Your task to perform on an android device: Open Wikipedia Image 0: 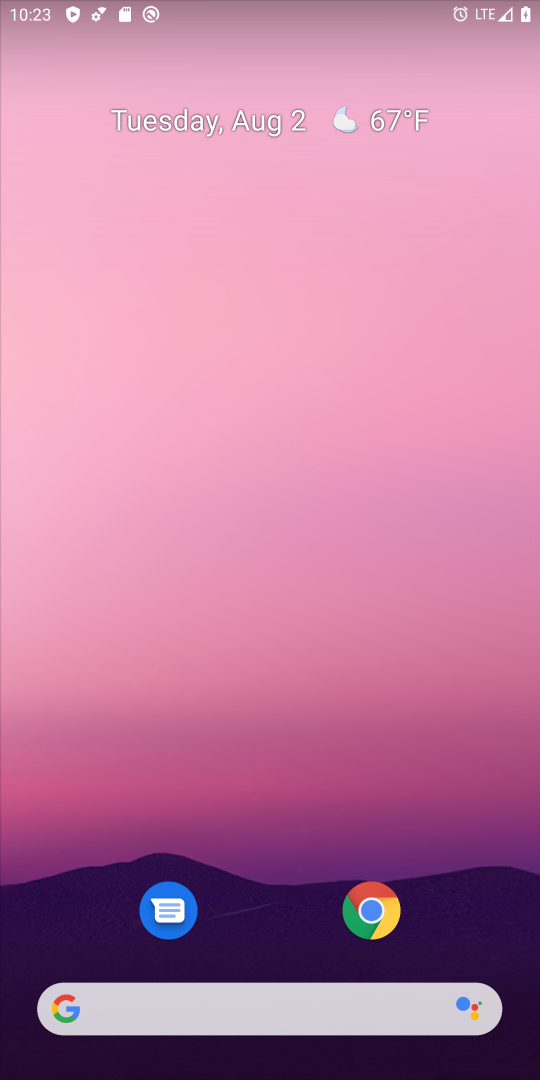
Step 0: drag from (259, 955) to (260, 503)
Your task to perform on an android device: Open Wikipedia Image 1: 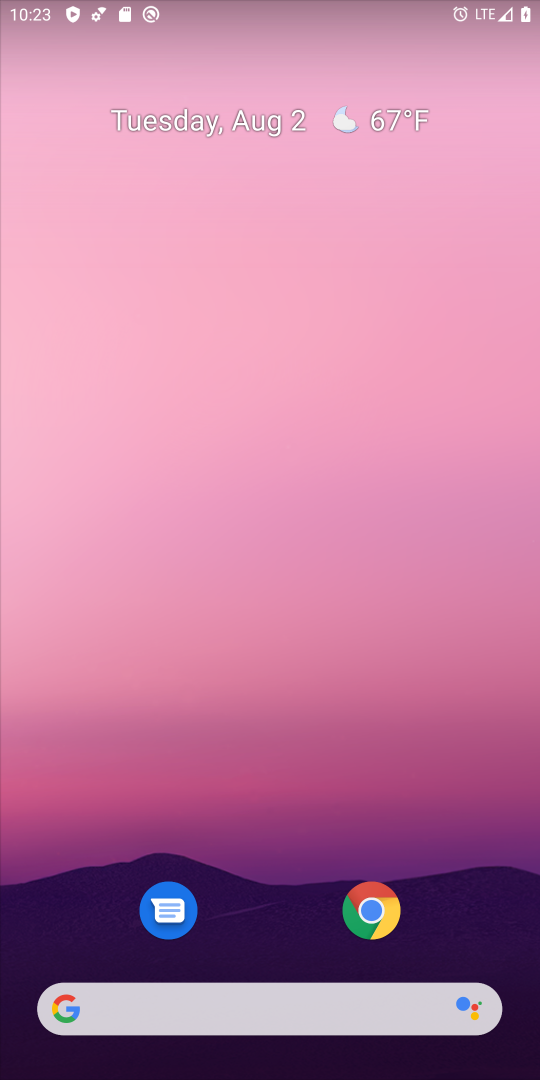
Step 1: drag from (233, 1024) to (253, 323)
Your task to perform on an android device: Open Wikipedia Image 2: 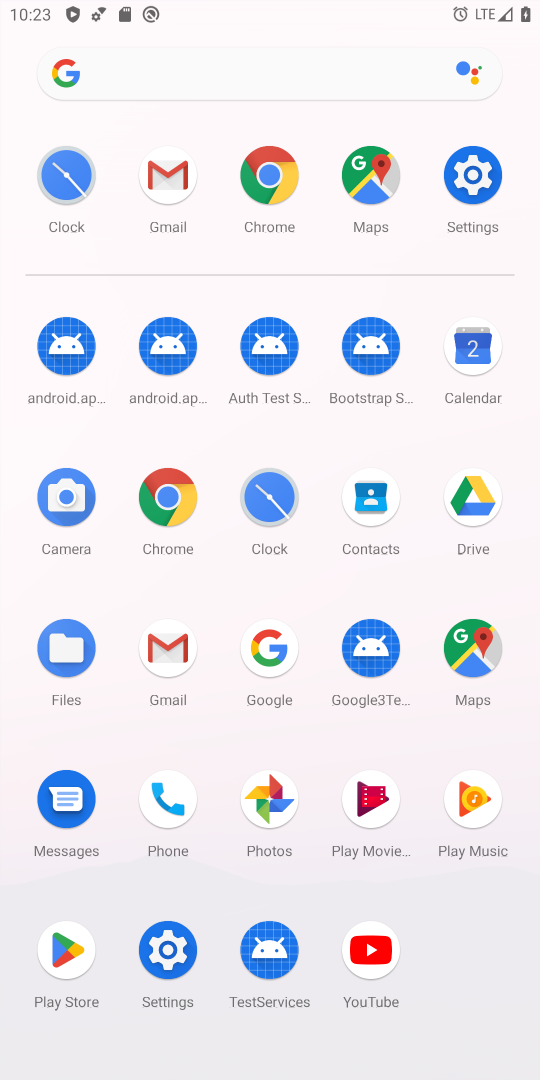
Step 2: click (269, 169)
Your task to perform on an android device: Open Wikipedia Image 3: 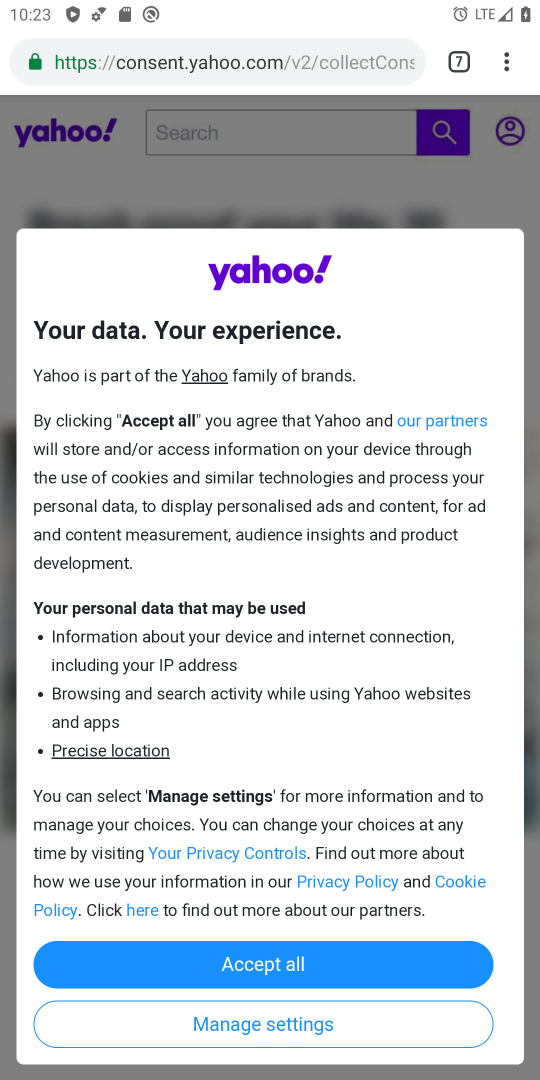
Step 3: click (497, 81)
Your task to perform on an android device: Open Wikipedia Image 4: 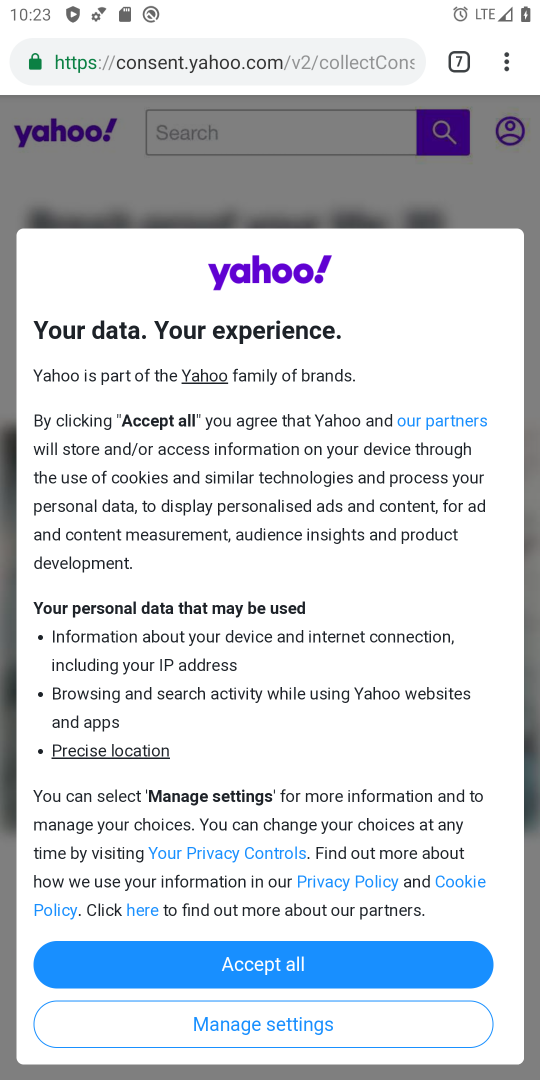
Step 4: click (514, 59)
Your task to perform on an android device: Open Wikipedia Image 5: 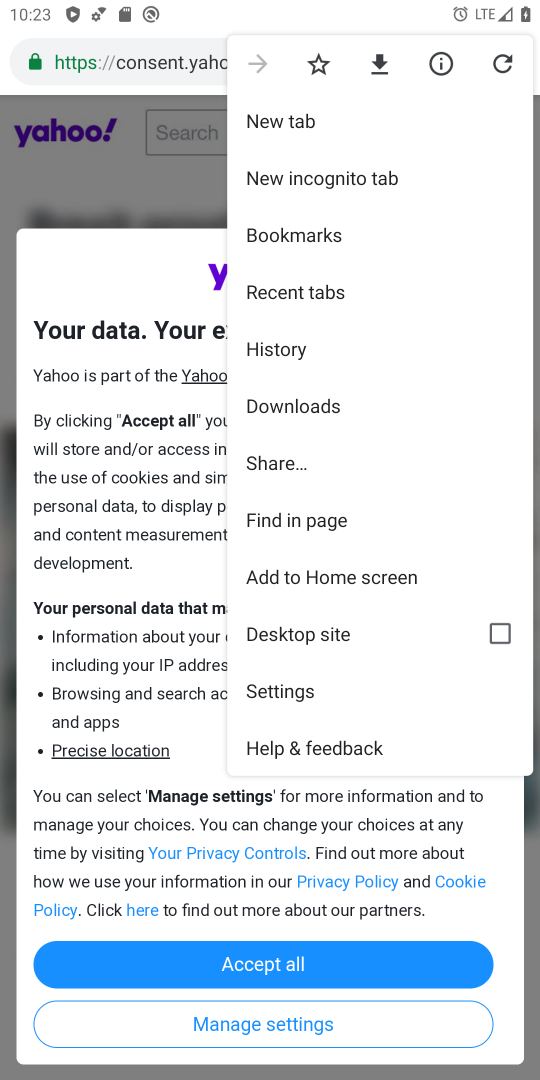
Step 5: click (274, 129)
Your task to perform on an android device: Open Wikipedia Image 6: 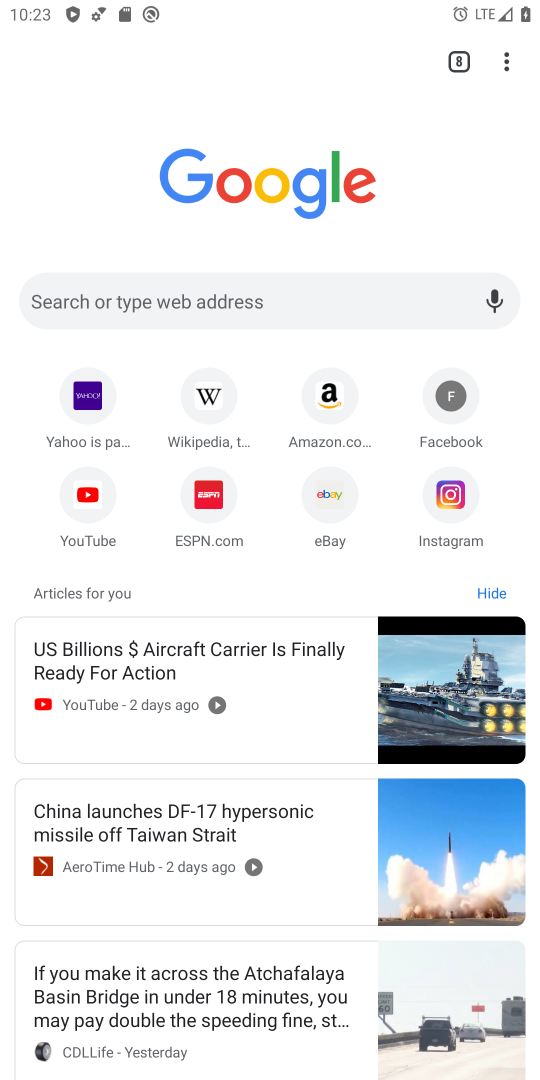
Step 6: click (192, 399)
Your task to perform on an android device: Open Wikipedia Image 7: 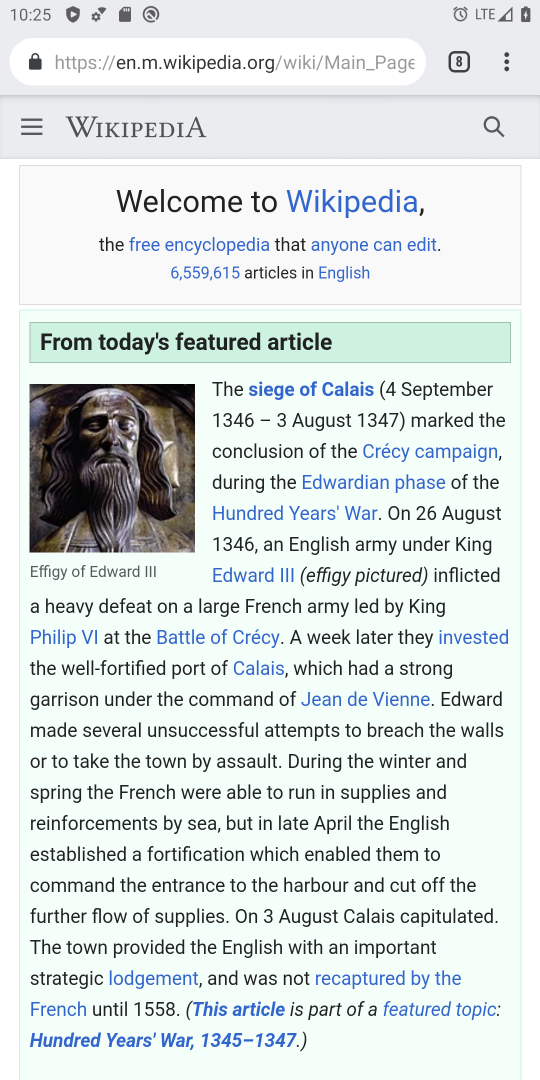
Step 7: task complete